Your task to perform on an android device: Open Chrome and go to the settings page Image 0: 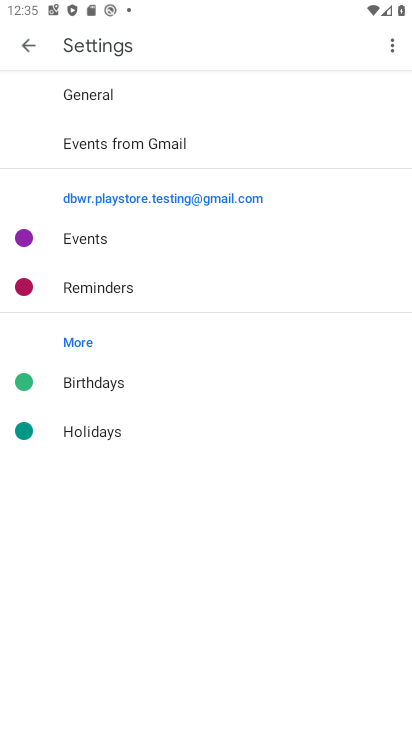
Step 0: press home button
Your task to perform on an android device: Open Chrome and go to the settings page Image 1: 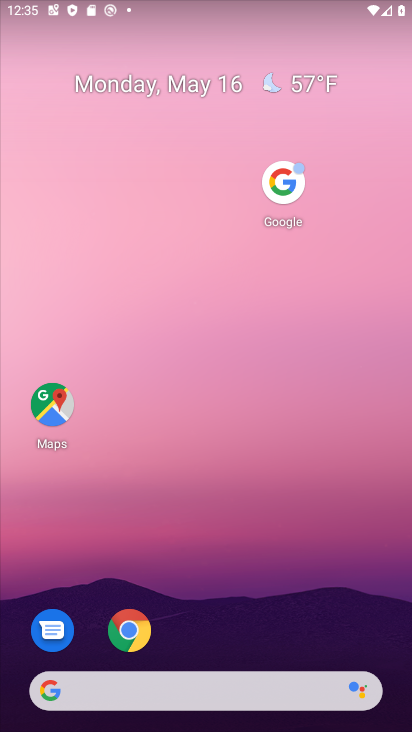
Step 1: click (128, 633)
Your task to perform on an android device: Open Chrome and go to the settings page Image 2: 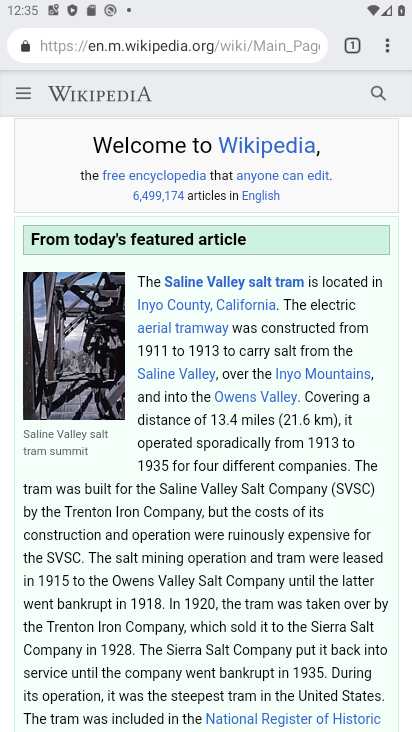
Step 2: click (386, 44)
Your task to perform on an android device: Open Chrome and go to the settings page Image 3: 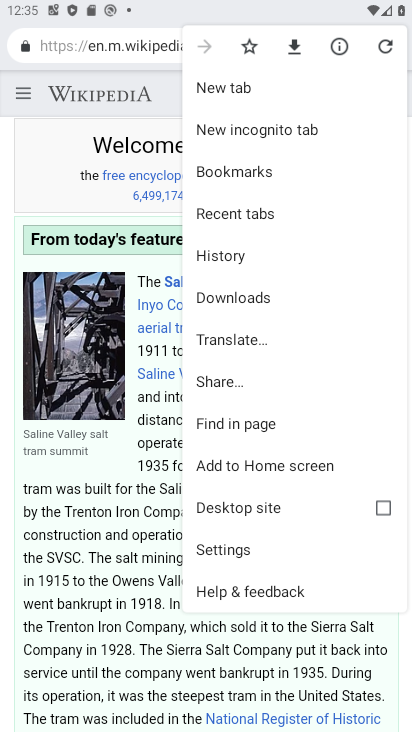
Step 3: click (386, 44)
Your task to perform on an android device: Open Chrome and go to the settings page Image 4: 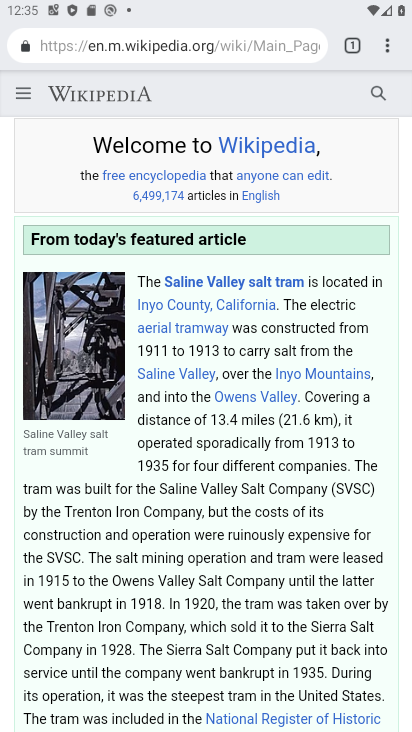
Step 4: click (385, 47)
Your task to perform on an android device: Open Chrome and go to the settings page Image 5: 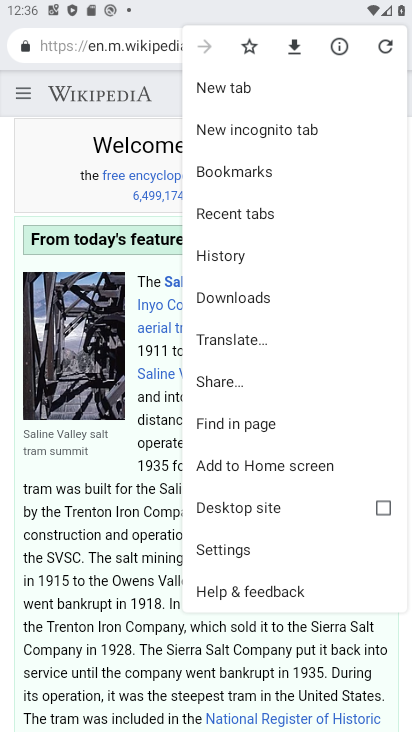
Step 5: click (237, 549)
Your task to perform on an android device: Open Chrome and go to the settings page Image 6: 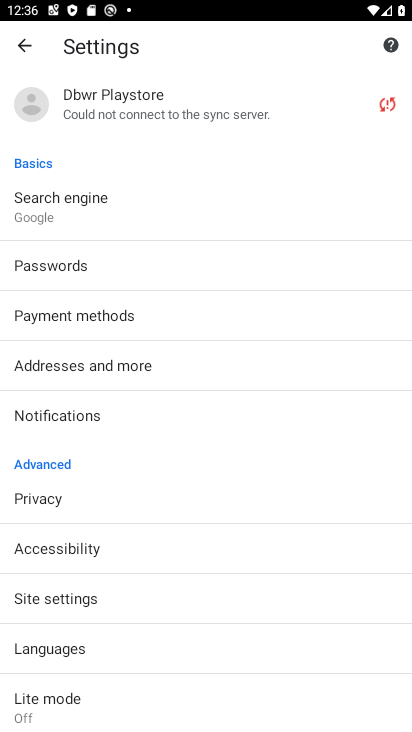
Step 6: task complete